Your task to perform on an android device: turn on wifi Image 0: 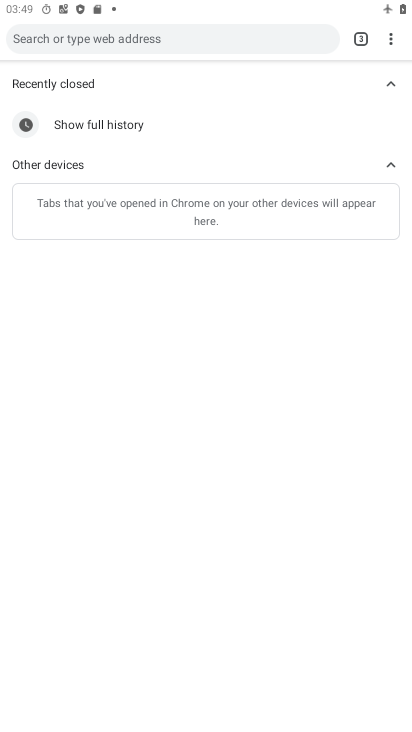
Step 0: press home button
Your task to perform on an android device: turn on wifi Image 1: 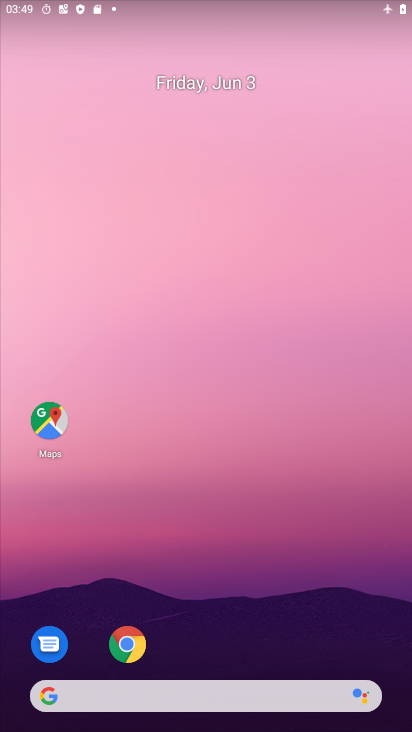
Step 1: drag from (205, 652) to (227, 245)
Your task to perform on an android device: turn on wifi Image 2: 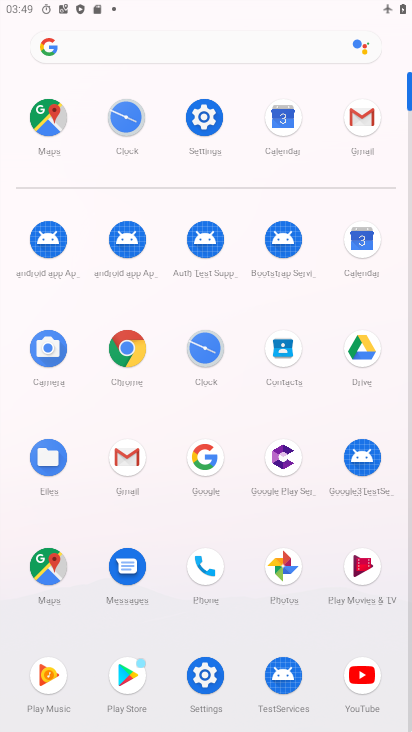
Step 2: click (198, 130)
Your task to perform on an android device: turn on wifi Image 3: 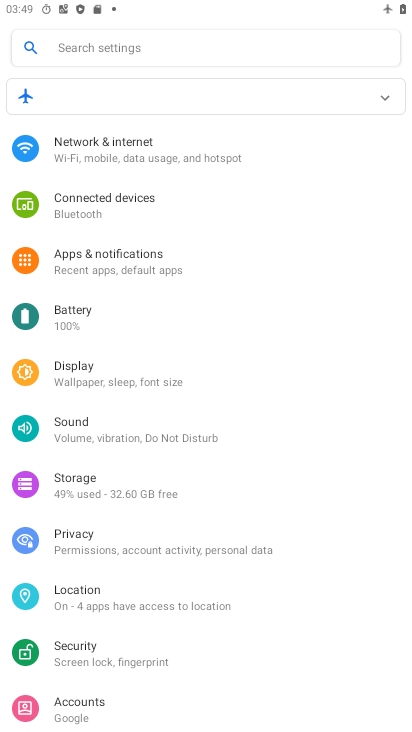
Step 3: click (127, 154)
Your task to perform on an android device: turn on wifi Image 4: 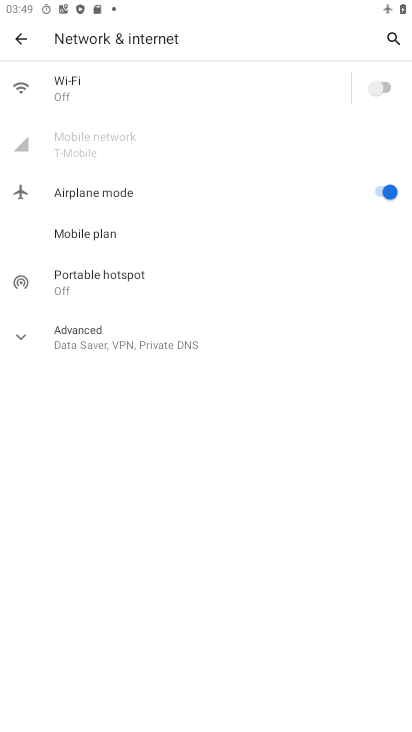
Step 4: click (382, 88)
Your task to perform on an android device: turn on wifi Image 5: 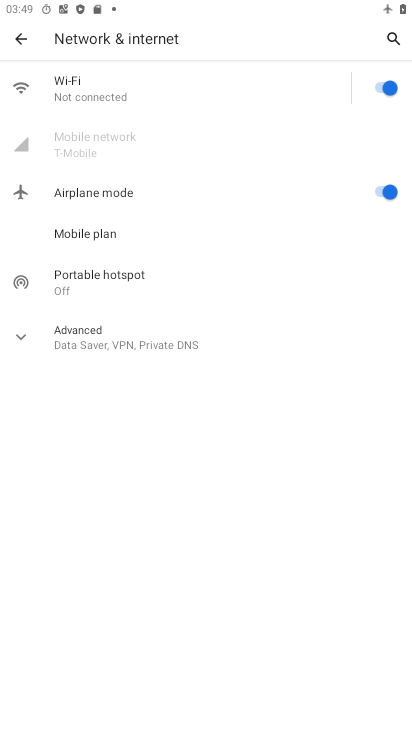
Step 5: task complete